Your task to perform on an android device: Is it going to rain today? Image 0: 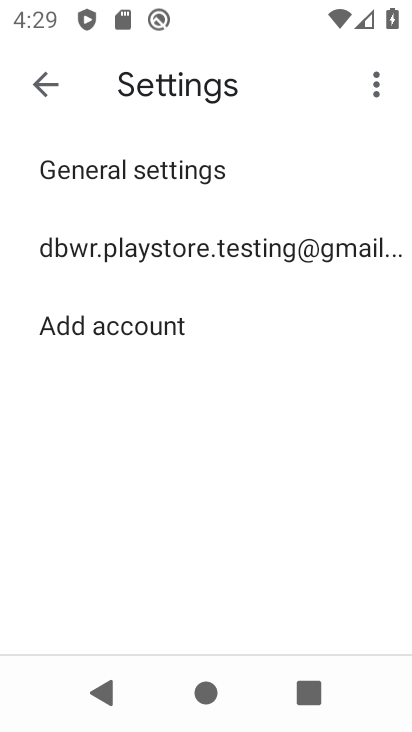
Step 0: press home button
Your task to perform on an android device: Is it going to rain today? Image 1: 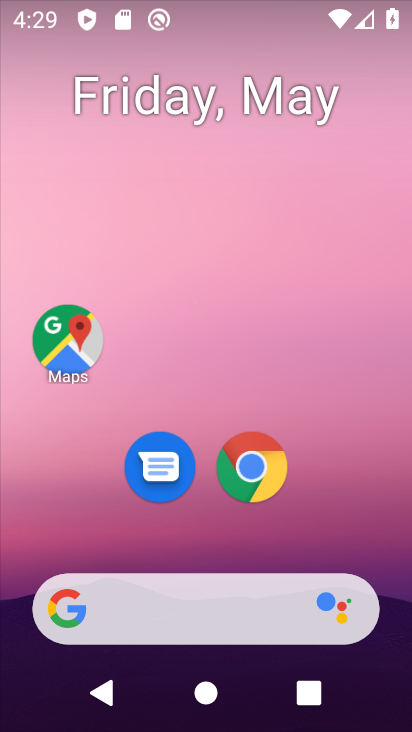
Step 1: drag from (343, 512) to (343, 170)
Your task to perform on an android device: Is it going to rain today? Image 2: 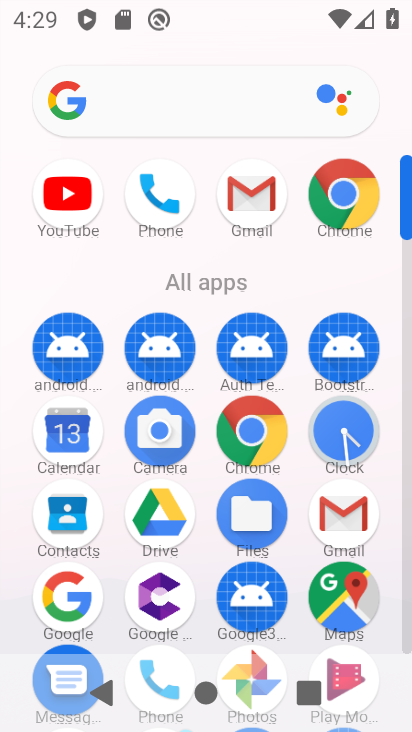
Step 2: click (260, 436)
Your task to perform on an android device: Is it going to rain today? Image 3: 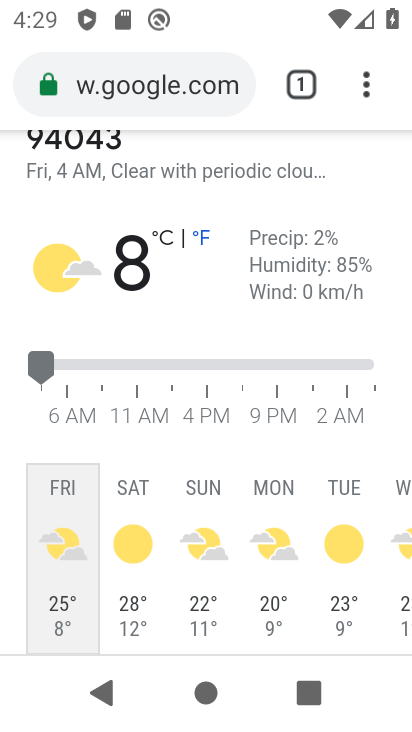
Step 3: drag from (259, 436) to (306, 274)
Your task to perform on an android device: Is it going to rain today? Image 4: 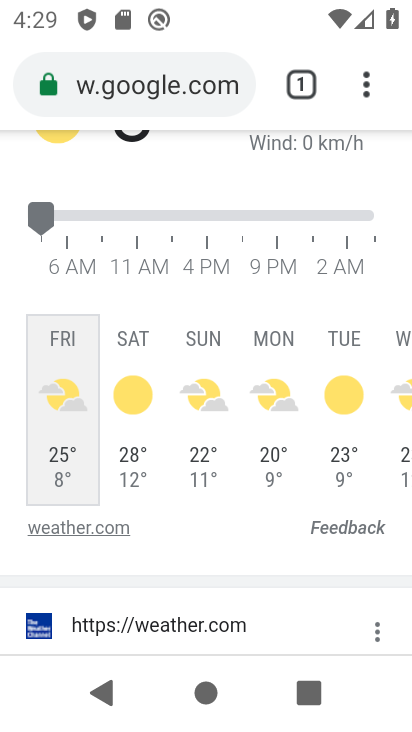
Step 4: click (80, 409)
Your task to perform on an android device: Is it going to rain today? Image 5: 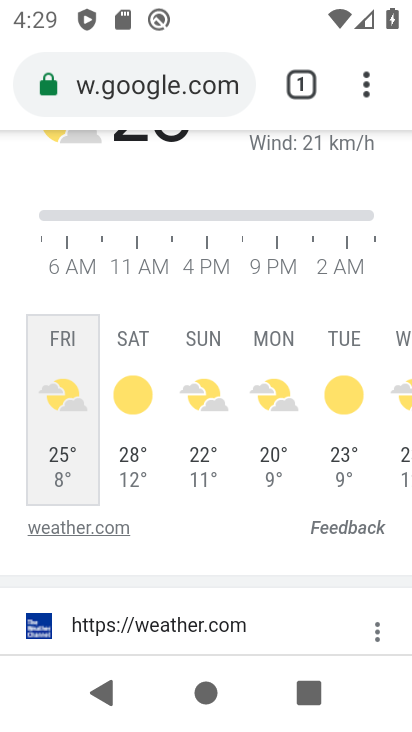
Step 5: task complete